Your task to perform on an android device: set an alarm Image 0: 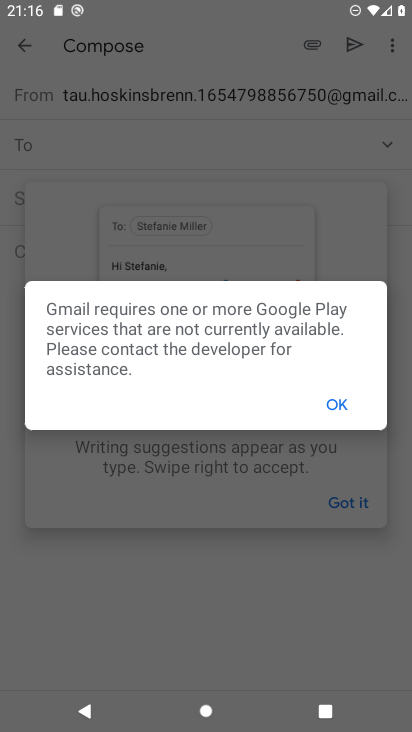
Step 0: press home button
Your task to perform on an android device: set an alarm Image 1: 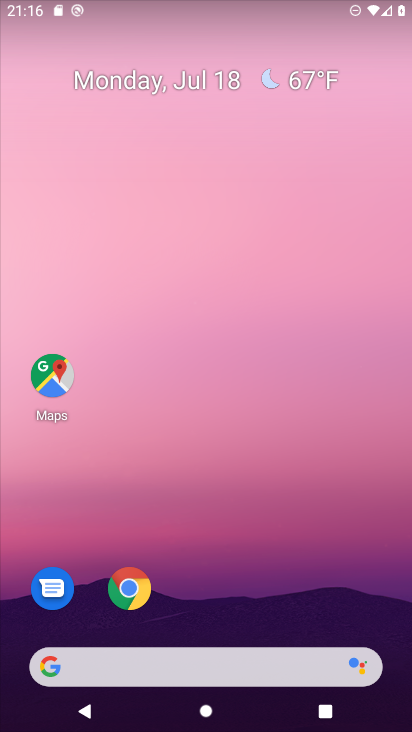
Step 1: drag from (306, 609) to (297, 111)
Your task to perform on an android device: set an alarm Image 2: 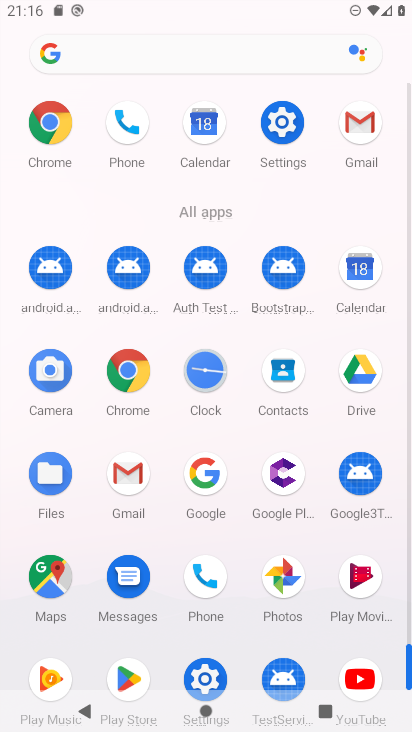
Step 2: click (202, 372)
Your task to perform on an android device: set an alarm Image 3: 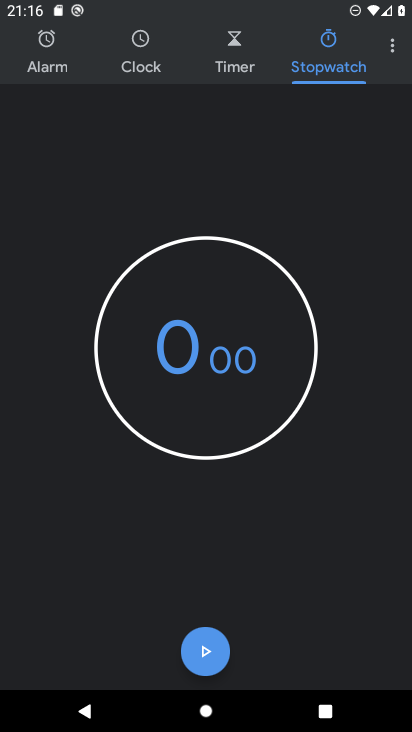
Step 3: click (46, 21)
Your task to perform on an android device: set an alarm Image 4: 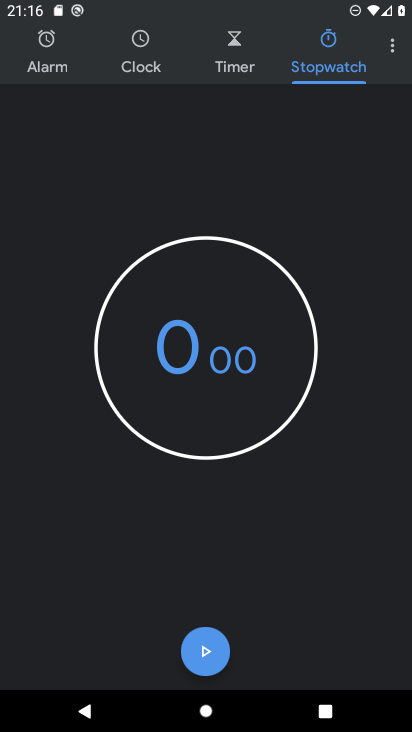
Step 4: click (50, 41)
Your task to perform on an android device: set an alarm Image 5: 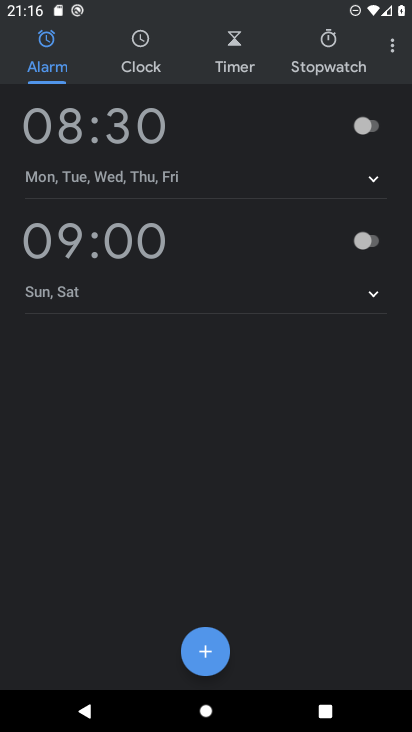
Step 5: click (99, 130)
Your task to perform on an android device: set an alarm Image 6: 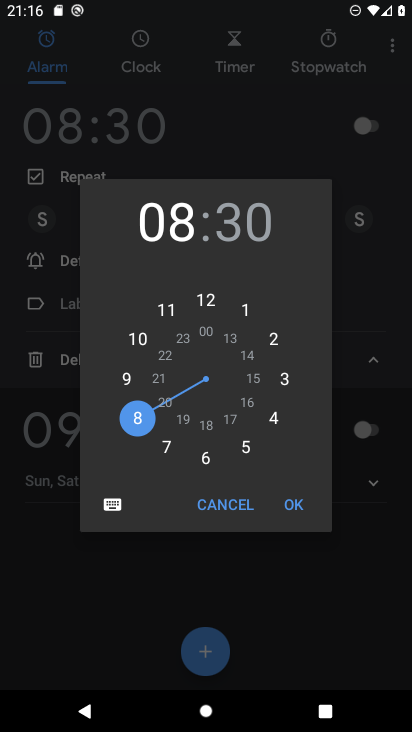
Step 6: click (205, 455)
Your task to perform on an android device: set an alarm Image 7: 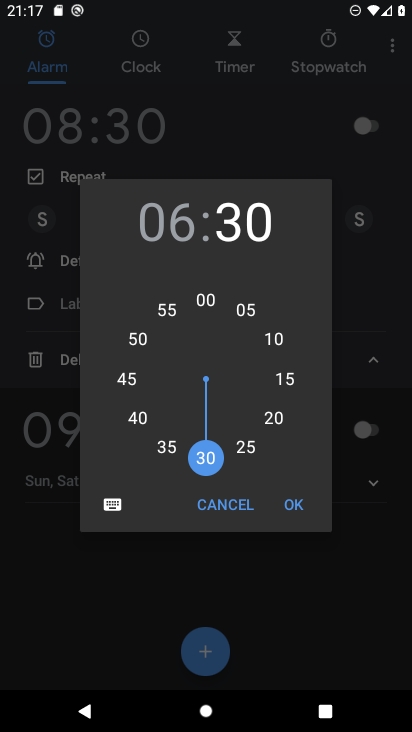
Step 7: click (203, 302)
Your task to perform on an android device: set an alarm Image 8: 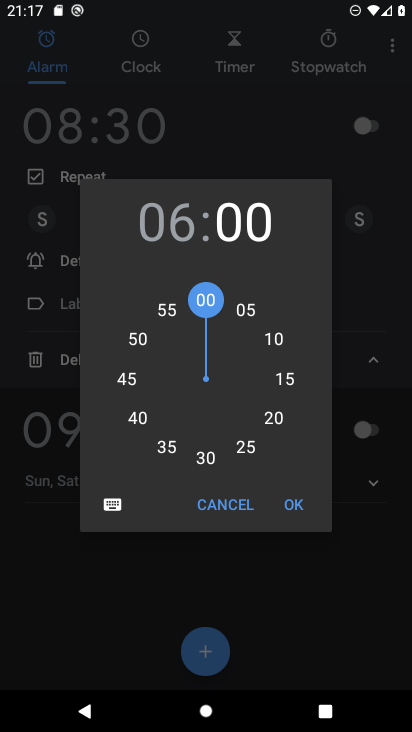
Step 8: click (293, 506)
Your task to perform on an android device: set an alarm Image 9: 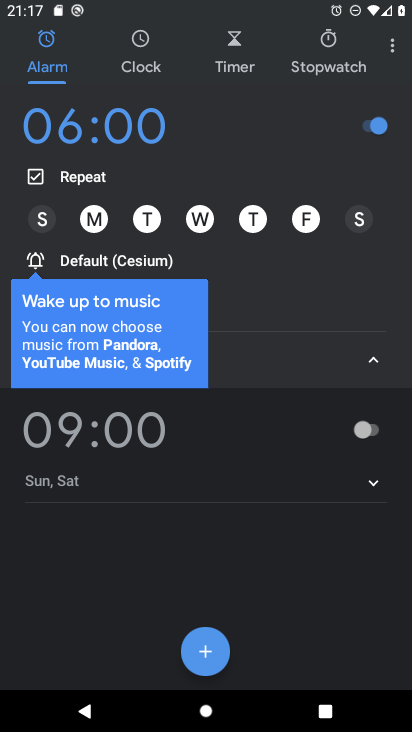
Step 9: click (359, 218)
Your task to perform on an android device: set an alarm Image 10: 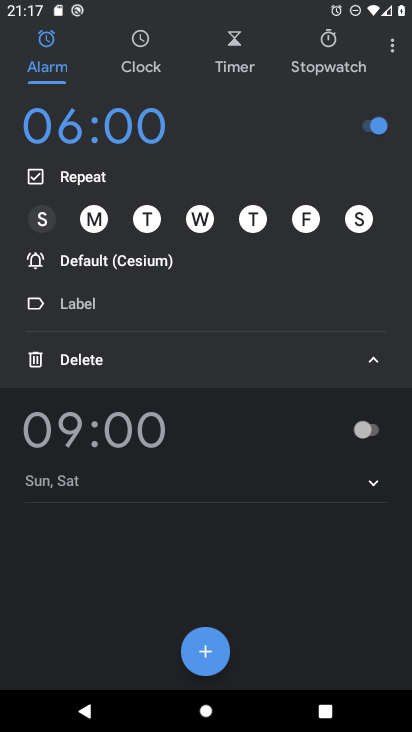
Step 10: click (371, 358)
Your task to perform on an android device: set an alarm Image 11: 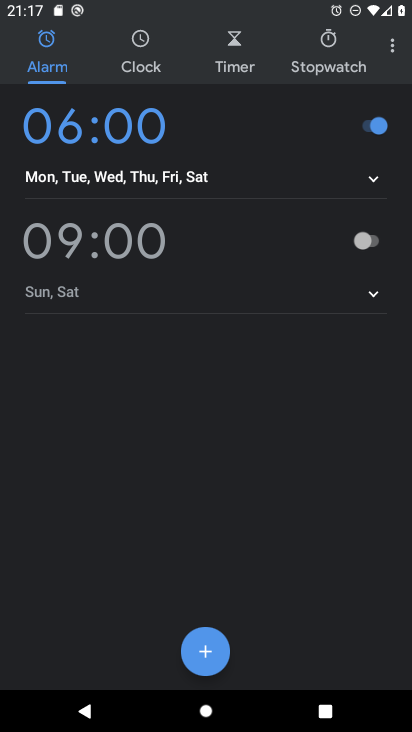
Step 11: task complete